Your task to perform on an android device: Open the phone app and click the voicemail tab. Image 0: 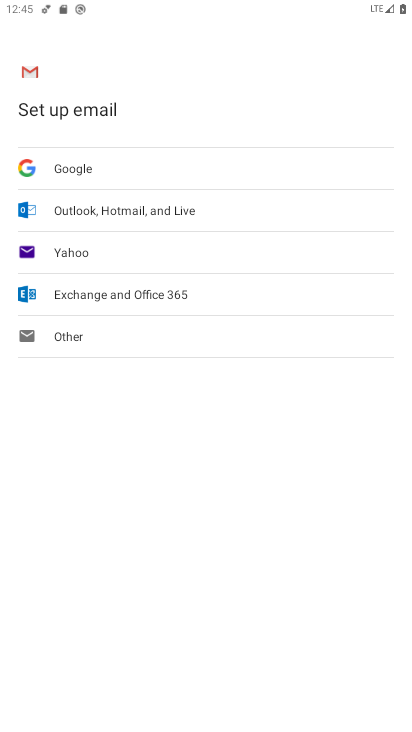
Step 0: press home button
Your task to perform on an android device: Open the phone app and click the voicemail tab. Image 1: 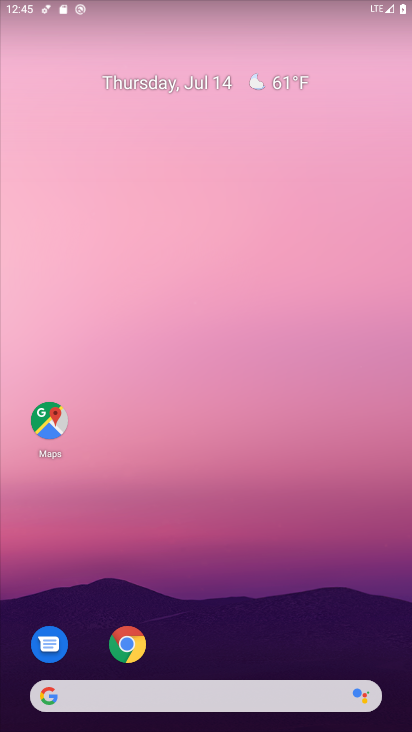
Step 1: drag from (315, 546) to (319, 8)
Your task to perform on an android device: Open the phone app and click the voicemail tab. Image 2: 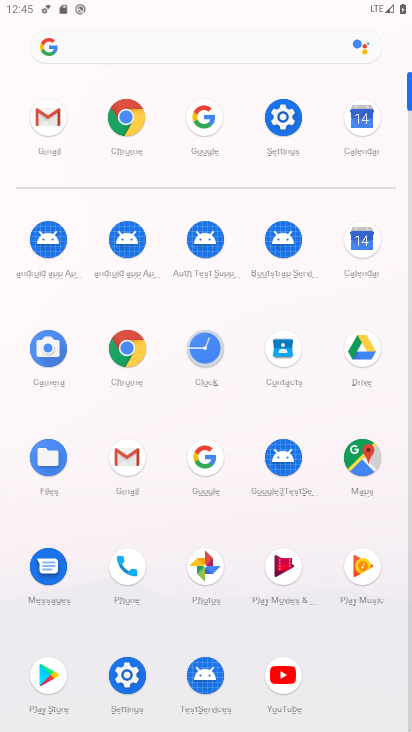
Step 2: click (119, 574)
Your task to perform on an android device: Open the phone app and click the voicemail tab. Image 3: 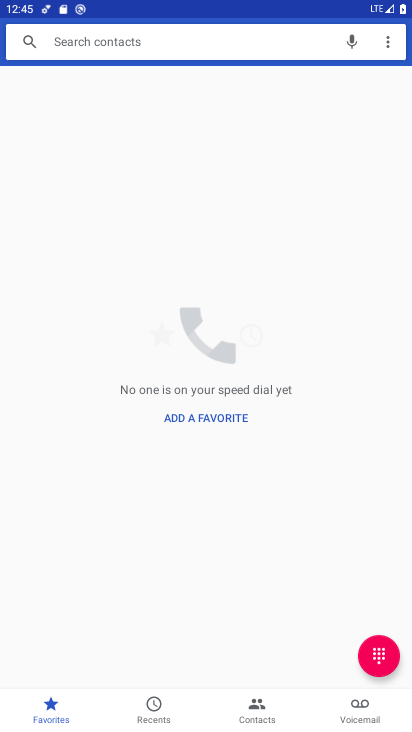
Step 3: click (367, 704)
Your task to perform on an android device: Open the phone app and click the voicemail tab. Image 4: 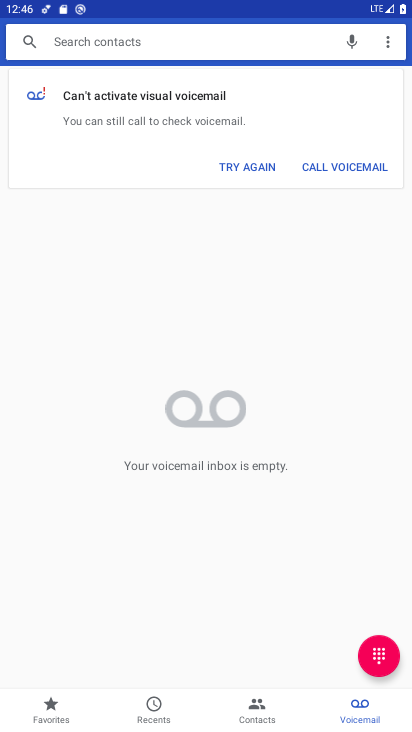
Step 4: task complete